Your task to perform on an android device: check the backup settings in the google photos Image 0: 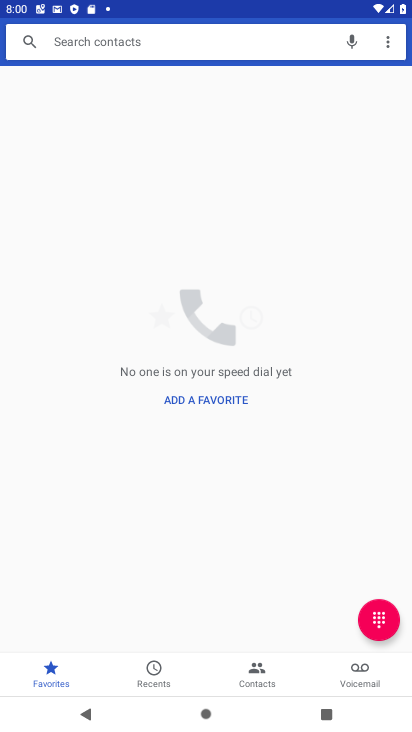
Step 0: press home button
Your task to perform on an android device: check the backup settings in the google photos Image 1: 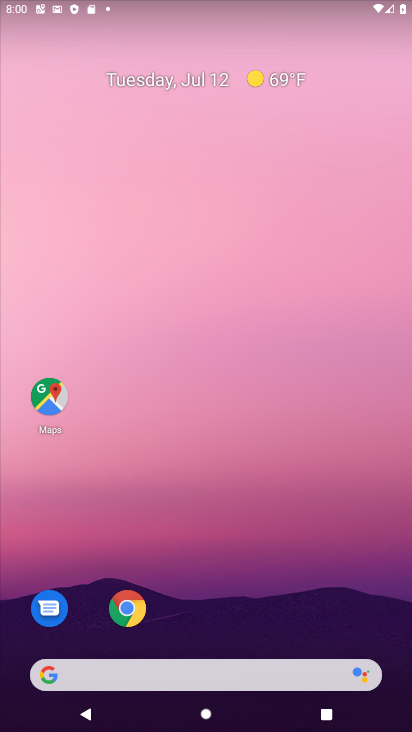
Step 1: drag from (220, 630) to (272, 172)
Your task to perform on an android device: check the backup settings in the google photos Image 2: 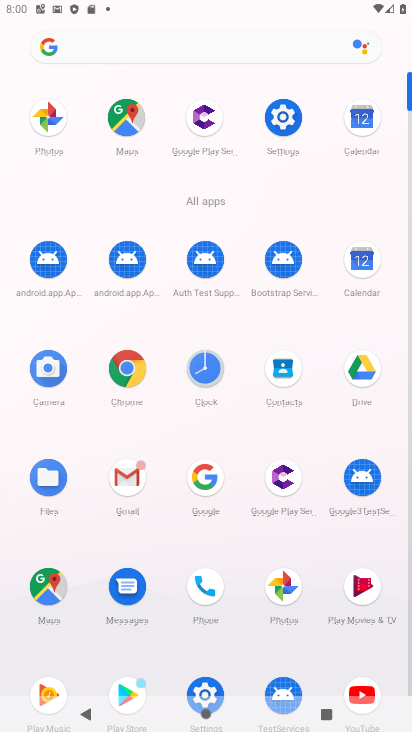
Step 2: click (277, 580)
Your task to perform on an android device: check the backup settings in the google photos Image 3: 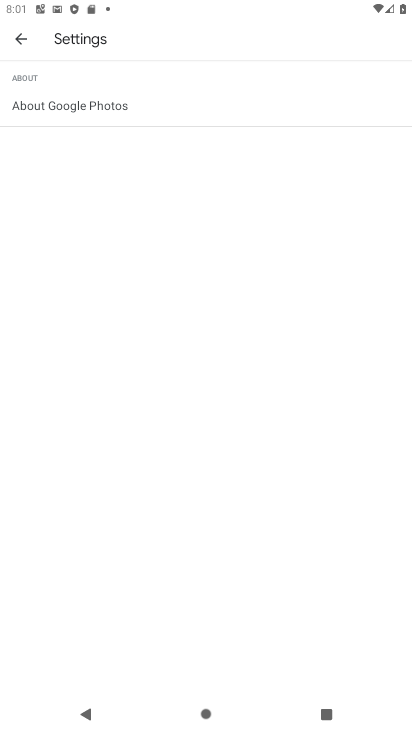
Step 3: press back button
Your task to perform on an android device: check the backup settings in the google photos Image 4: 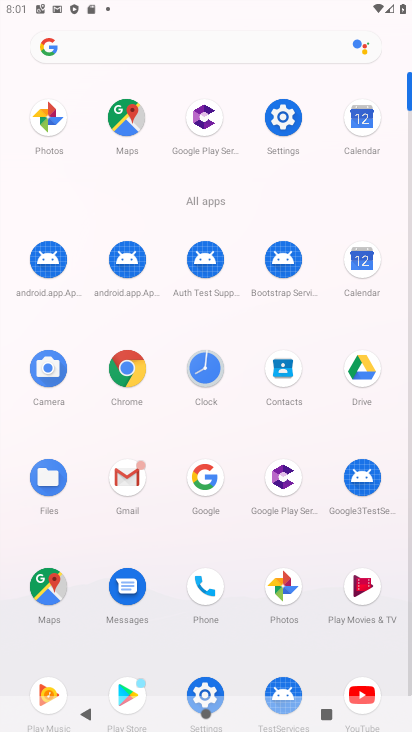
Step 4: click (288, 590)
Your task to perform on an android device: check the backup settings in the google photos Image 5: 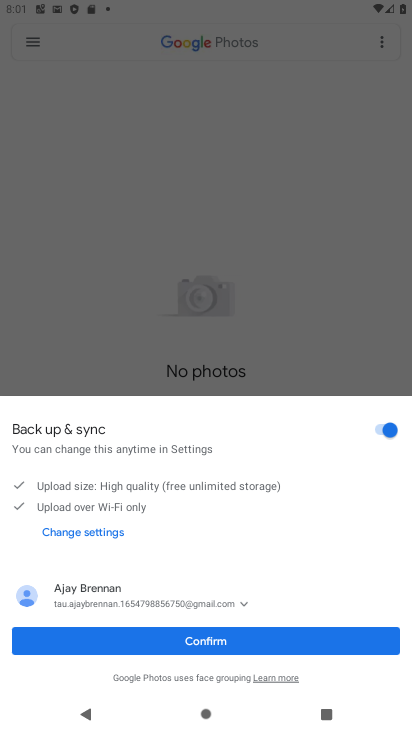
Step 5: click (206, 641)
Your task to perform on an android device: check the backup settings in the google photos Image 6: 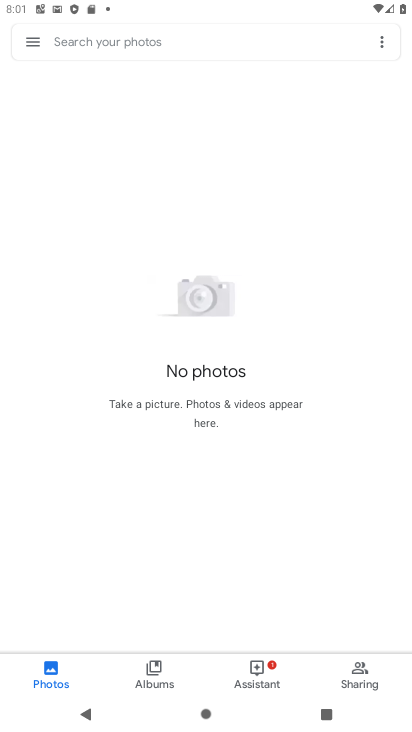
Step 6: click (34, 38)
Your task to perform on an android device: check the backup settings in the google photos Image 7: 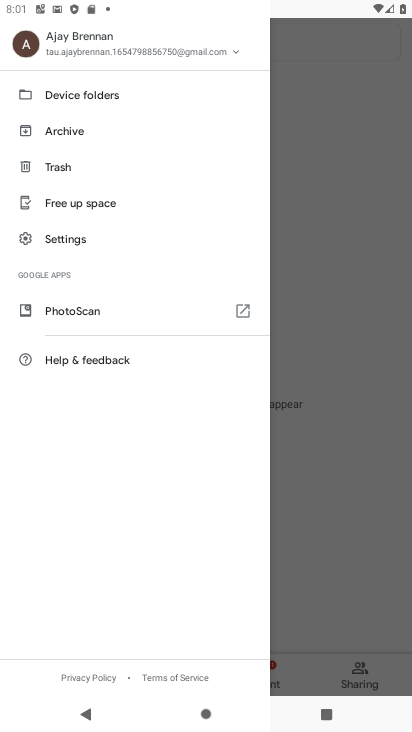
Step 7: click (79, 244)
Your task to perform on an android device: check the backup settings in the google photos Image 8: 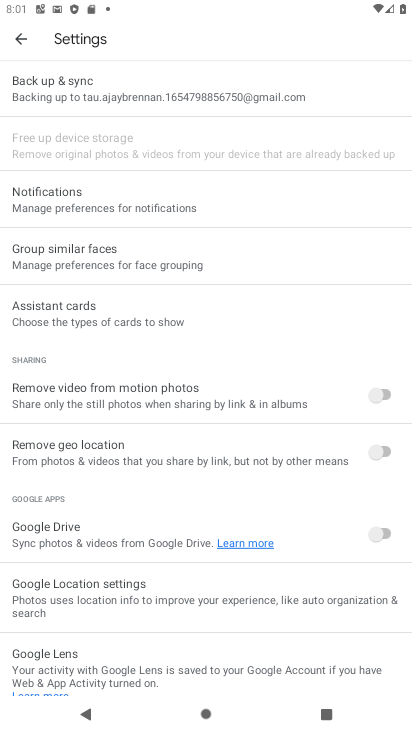
Step 8: click (88, 92)
Your task to perform on an android device: check the backup settings in the google photos Image 9: 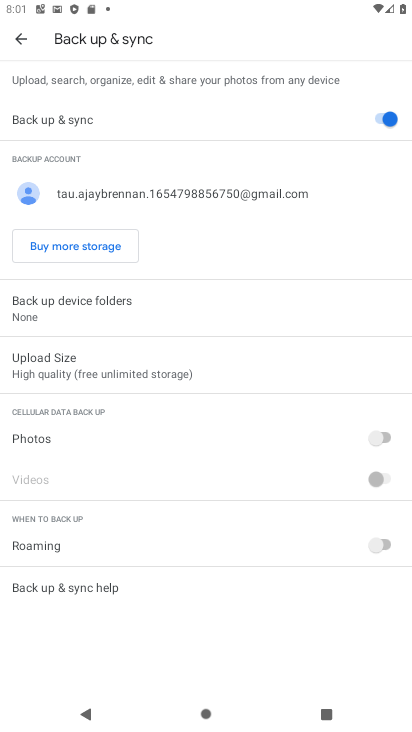
Step 9: task complete